Your task to perform on an android device: set the stopwatch Image 0: 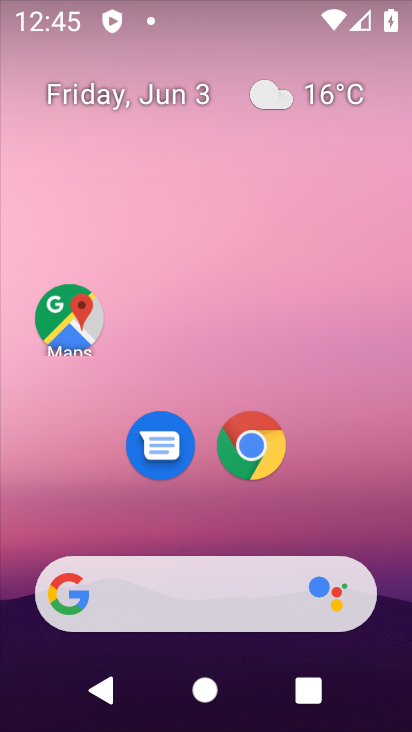
Step 0: drag from (196, 514) to (188, 82)
Your task to perform on an android device: set the stopwatch Image 1: 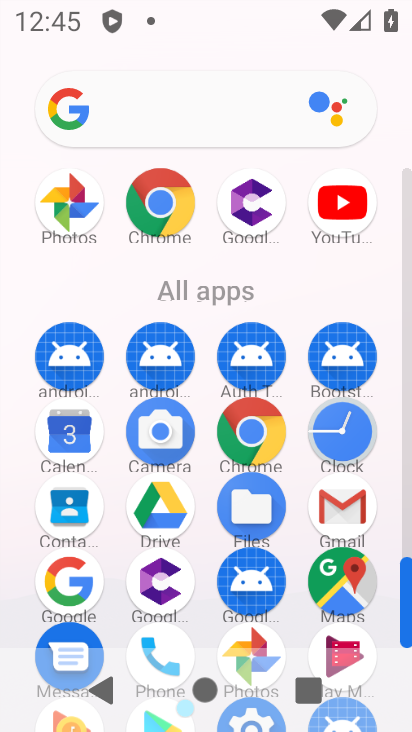
Step 1: click (336, 428)
Your task to perform on an android device: set the stopwatch Image 2: 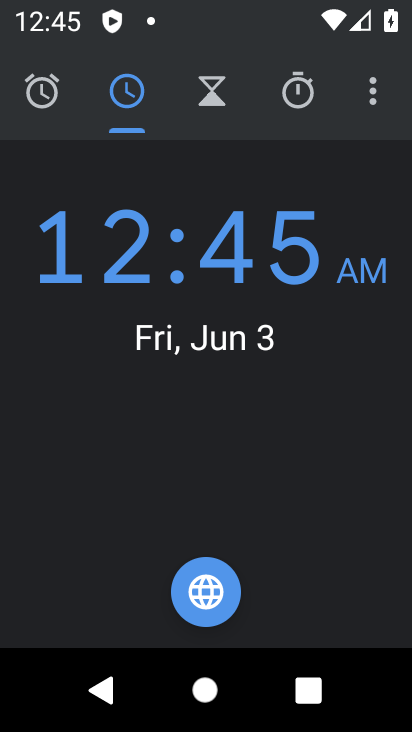
Step 2: click (312, 85)
Your task to perform on an android device: set the stopwatch Image 3: 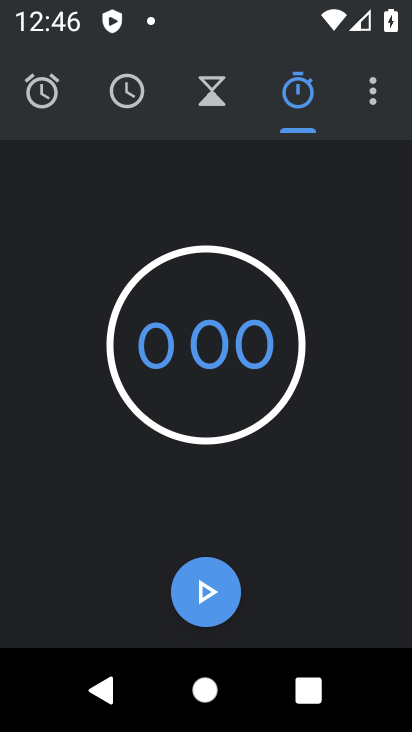
Step 3: click (237, 584)
Your task to perform on an android device: set the stopwatch Image 4: 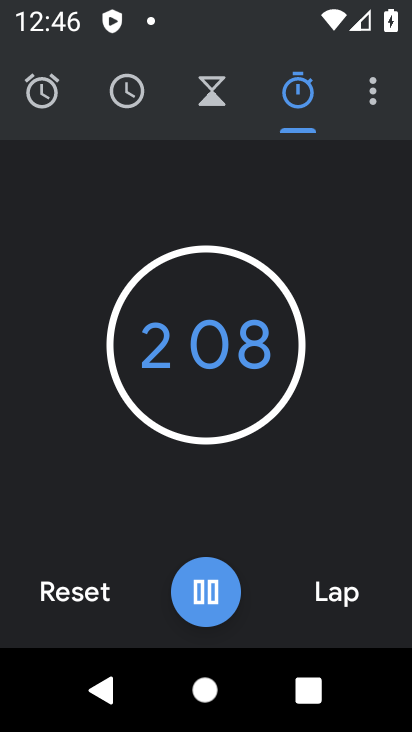
Step 4: task complete